Your task to perform on an android device: Open Google Image 0: 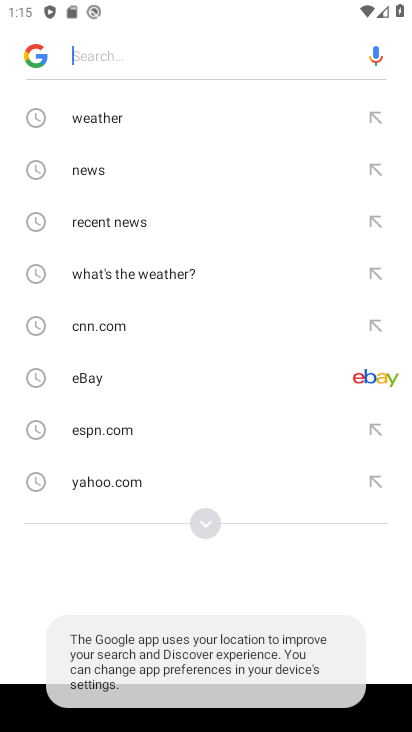
Step 0: press back button
Your task to perform on an android device: Open Google Image 1: 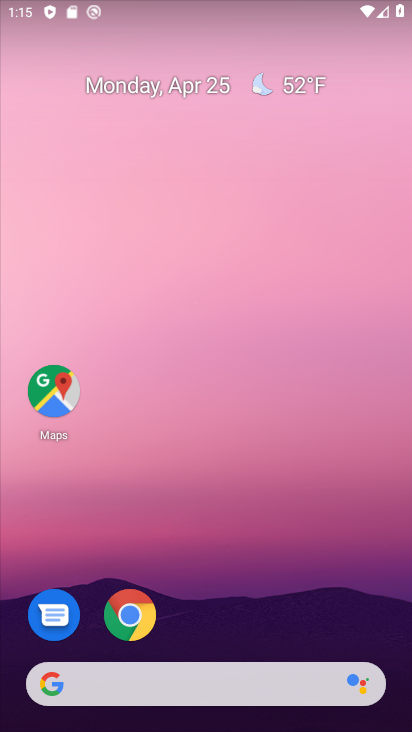
Step 1: drag from (210, 463) to (215, 18)
Your task to perform on an android device: Open Google Image 2: 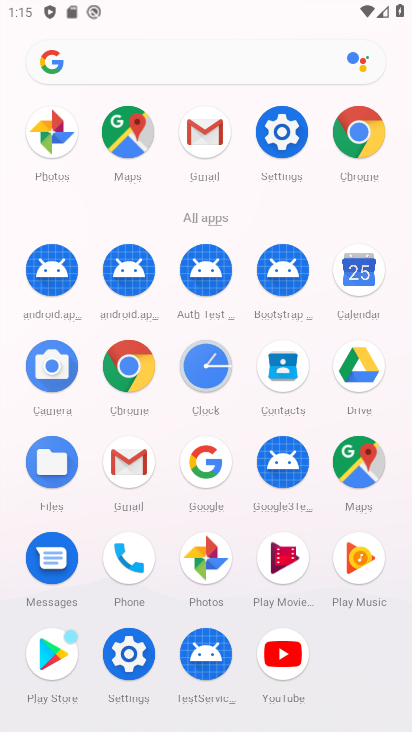
Step 2: click (200, 462)
Your task to perform on an android device: Open Google Image 3: 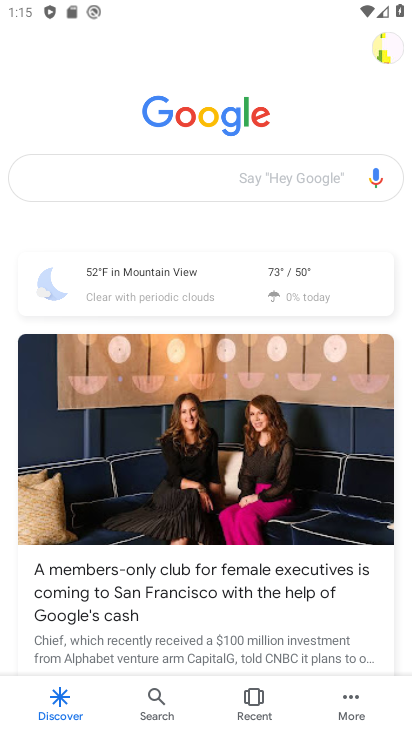
Step 3: task complete